Your task to perform on an android device: turn off smart reply in the gmail app Image 0: 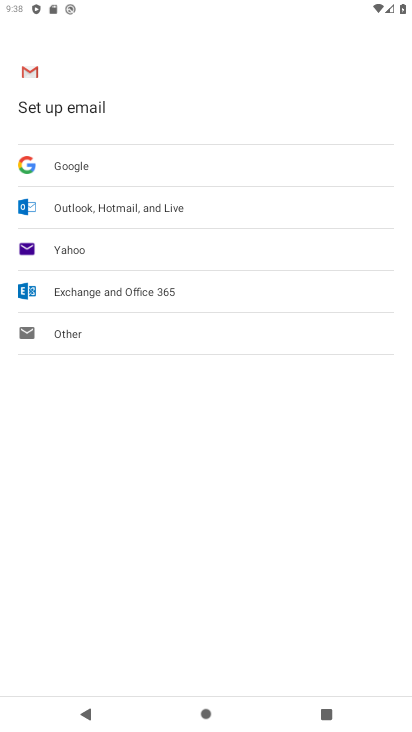
Step 0: press home button
Your task to perform on an android device: turn off smart reply in the gmail app Image 1: 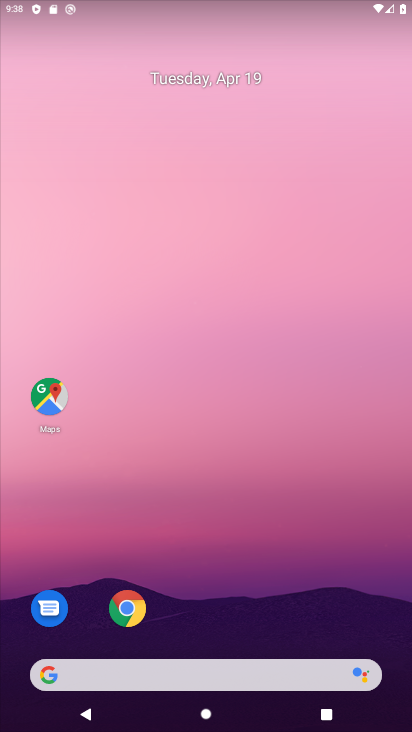
Step 1: drag from (211, 724) to (212, 20)
Your task to perform on an android device: turn off smart reply in the gmail app Image 2: 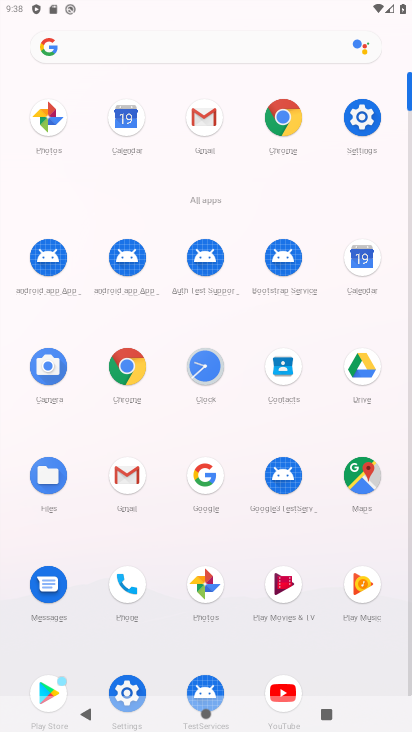
Step 2: click (128, 474)
Your task to perform on an android device: turn off smart reply in the gmail app Image 3: 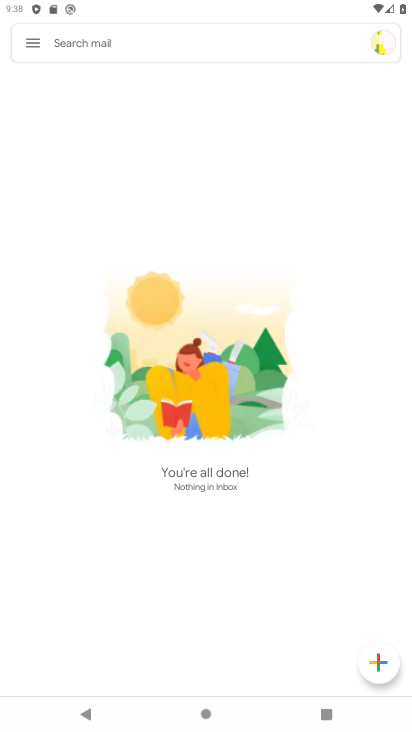
Step 3: click (35, 37)
Your task to perform on an android device: turn off smart reply in the gmail app Image 4: 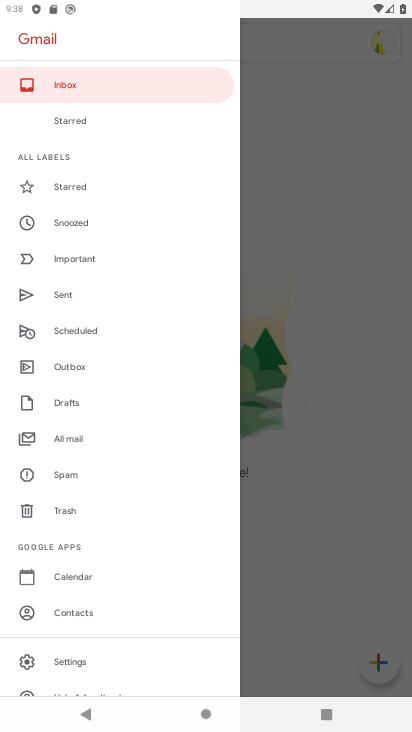
Step 4: click (68, 662)
Your task to perform on an android device: turn off smart reply in the gmail app Image 5: 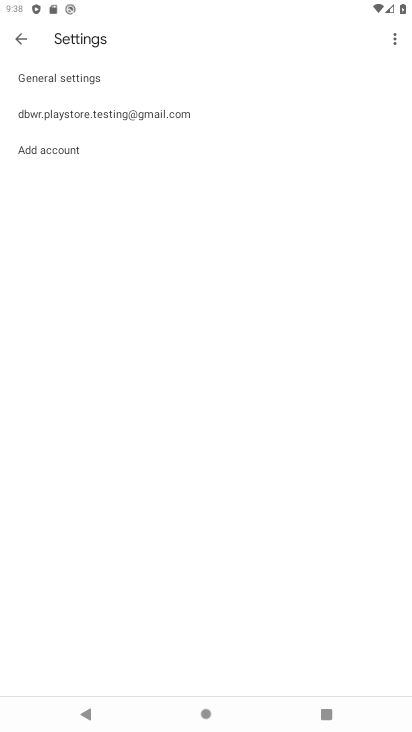
Step 5: click (140, 110)
Your task to perform on an android device: turn off smart reply in the gmail app Image 6: 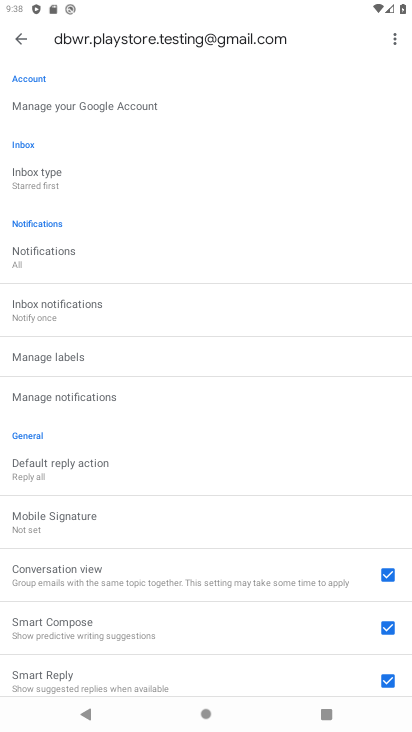
Step 6: drag from (180, 656) to (193, 256)
Your task to perform on an android device: turn off smart reply in the gmail app Image 7: 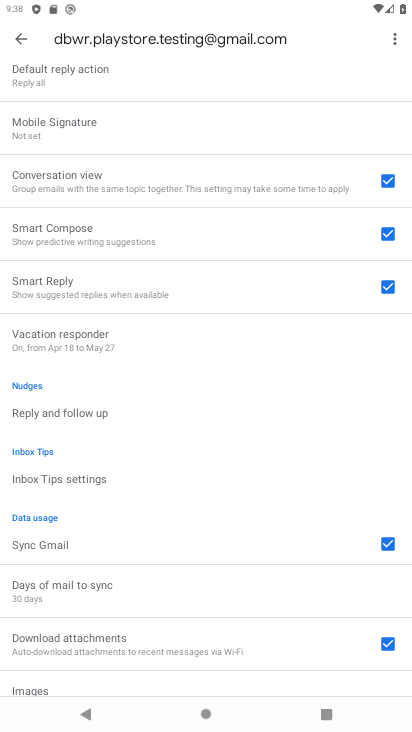
Step 7: click (387, 282)
Your task to perform on an android device: turn off smart reply in the gmail app Image 8: 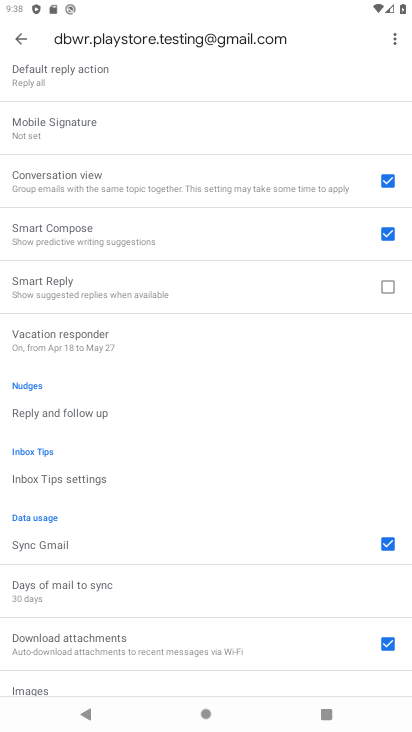
Step 8: task complete